Your task to perform on an android device: Open Amazon Image 0: 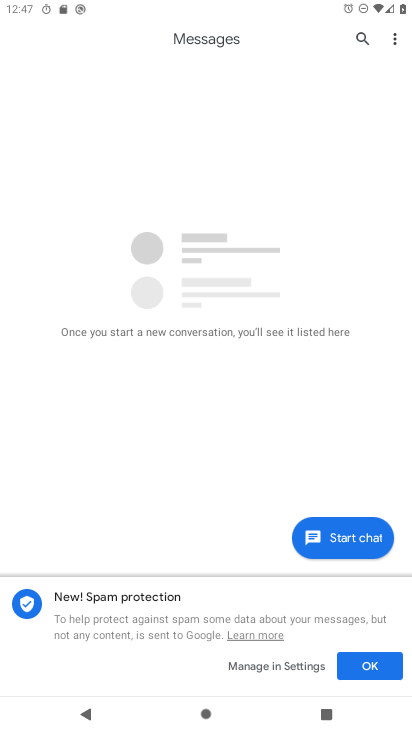
Step 0: press home button
Your task to perform on an android device: Open Amazon Image 1: 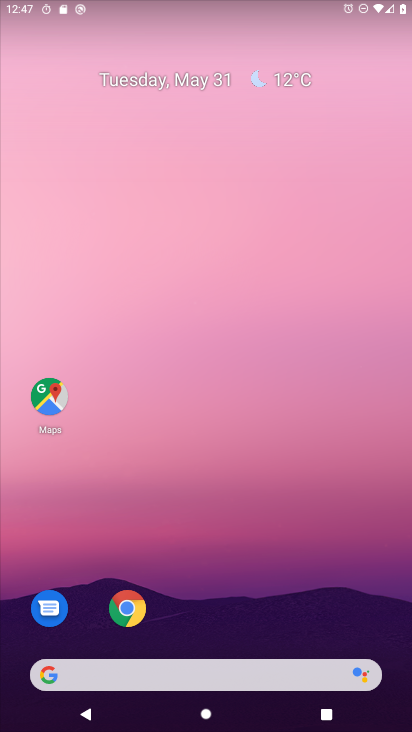
Step 1: click (126, 607)
Your task to perform on an android device: Open Amazon Image 2: 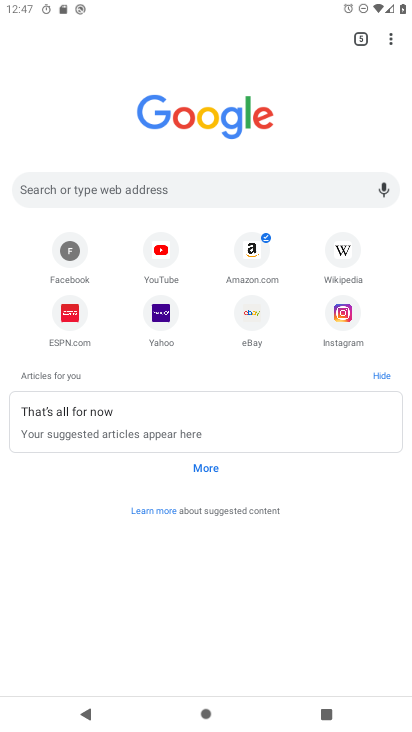
Step 2: click (253, 271)
Your task to perform on an android device: Open Amazon Image 3: 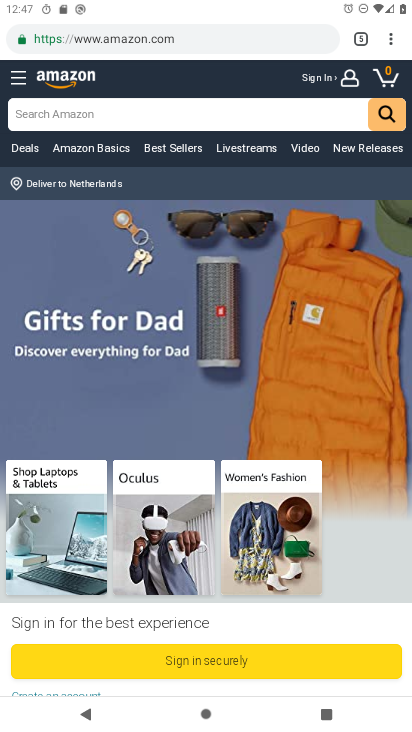
Step 3: task complete